Your task to perform on an android device: add a contact Image 0: 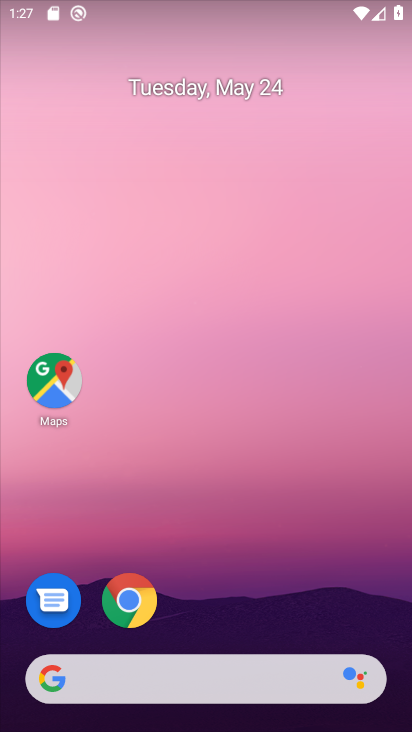
Step 0: drag from (270, 532) to (257, 269)
Your task to perform on an android device: add a contact Image 1: 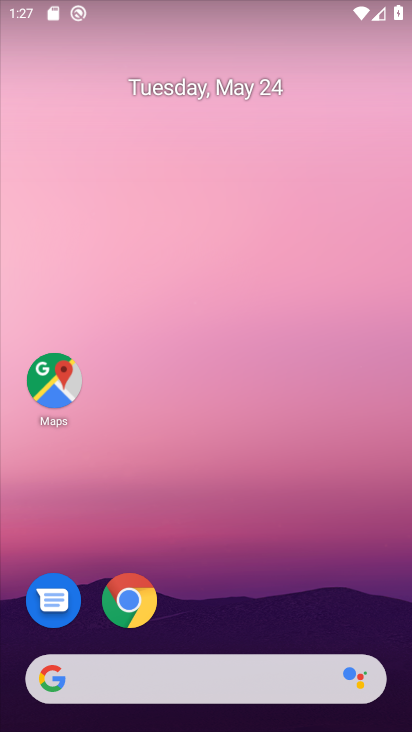
Step 1: drag from (224, 530) to (215, 144)
Your task to perform on an android device: add a contact Image 2: 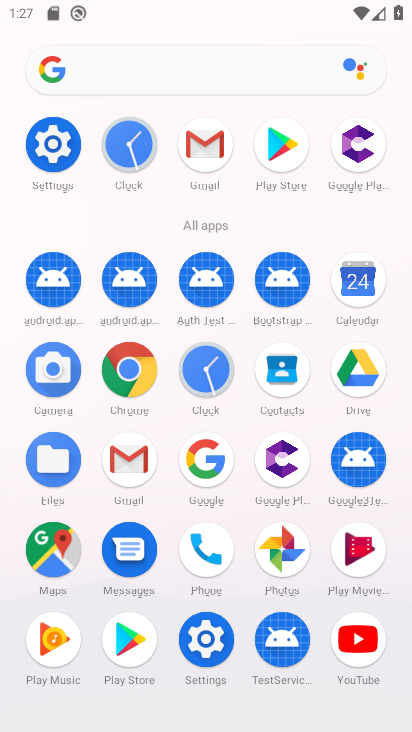
Step 2: click (265, 364)
Your task to perform on an android device: add a contact Image 3: 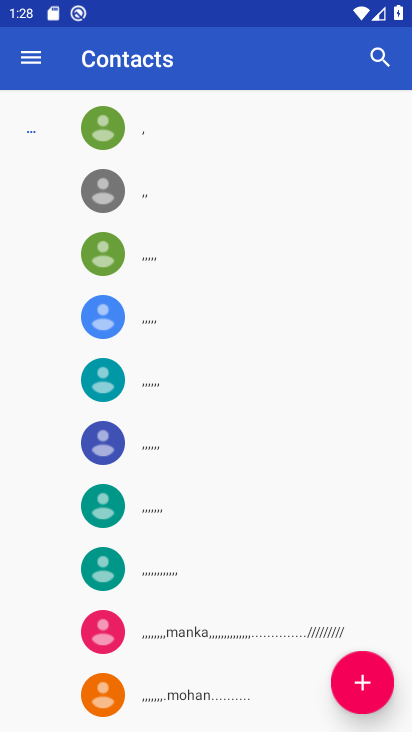
Step 3: click (376, 689)
Your task to perform on an android device: add a contact Image 4: 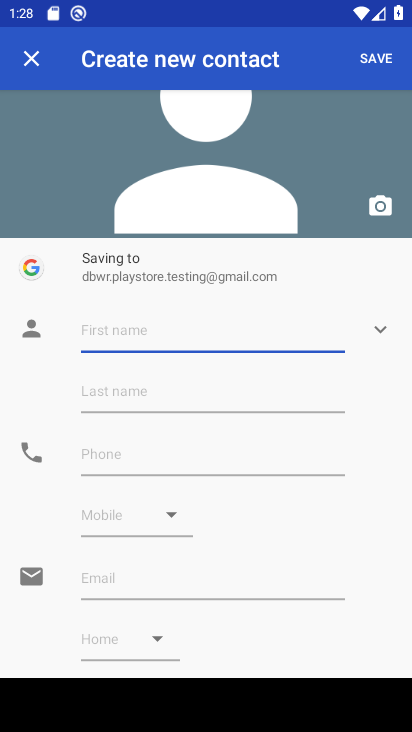
Step 4: type "dev"
Your task to perform on an android device: add a contact Image 5: 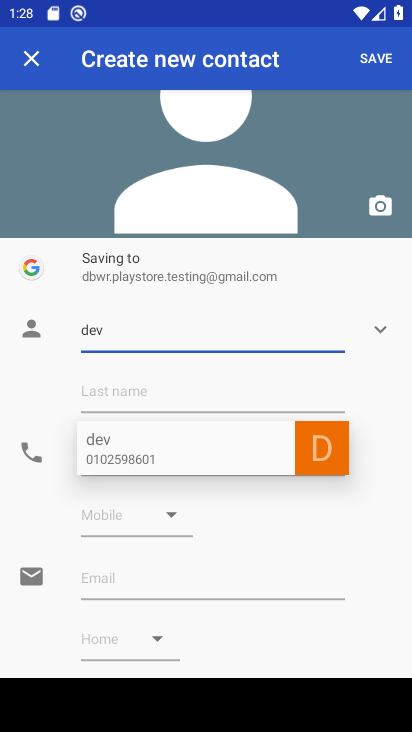
Step 5: click (206, 578)
Your task to perform on an android device: add a contact Image 6: 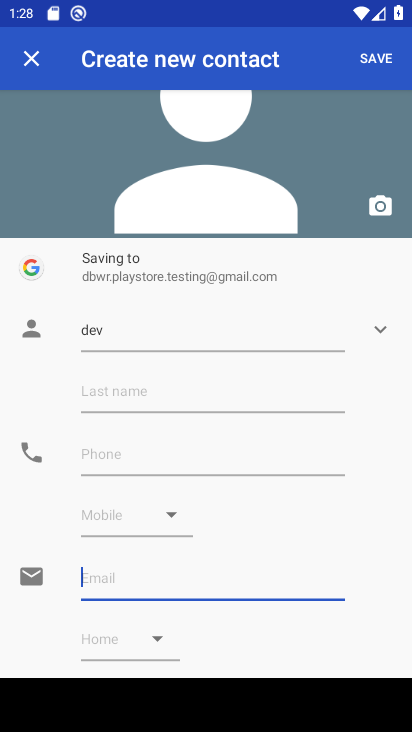
Step 6: click (111, 324)
Your task to perform on an android device: add a contact Image 7: 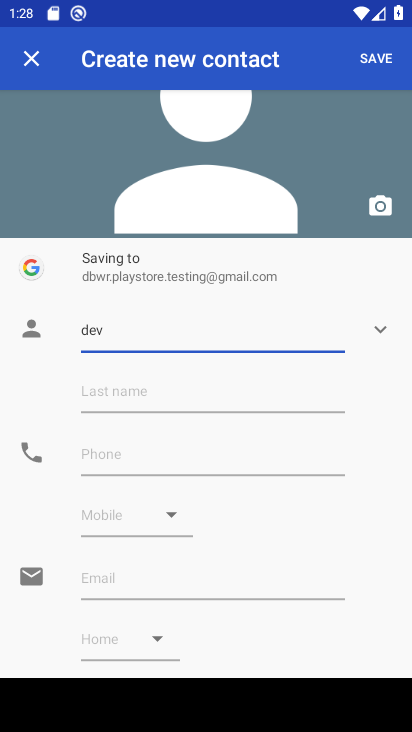
Step 7: type "shree"
Your task to perform on an android device: add a contact Image 8: 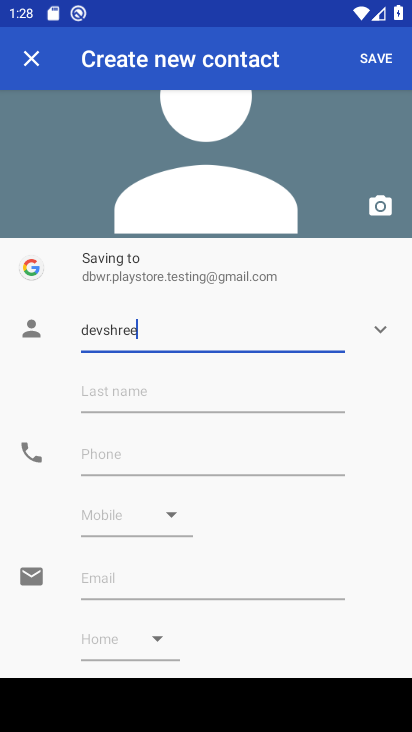
Step 8: click (202, 455)
Your task to perform on an android device: add a contact Image 9: 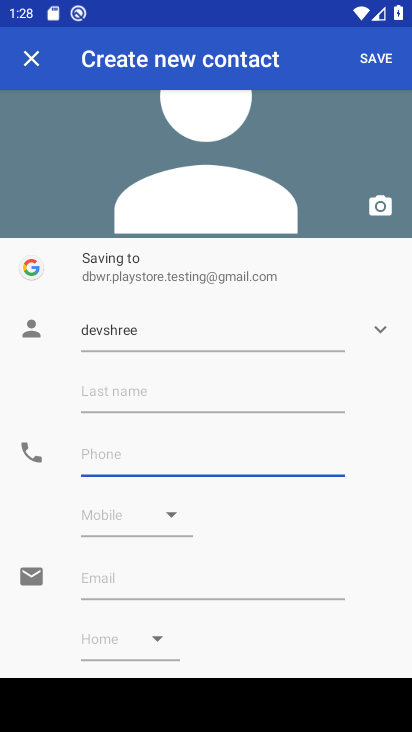
Step 9: click (202, 455)
Your task to perform on an android device: add a contact Image 10: 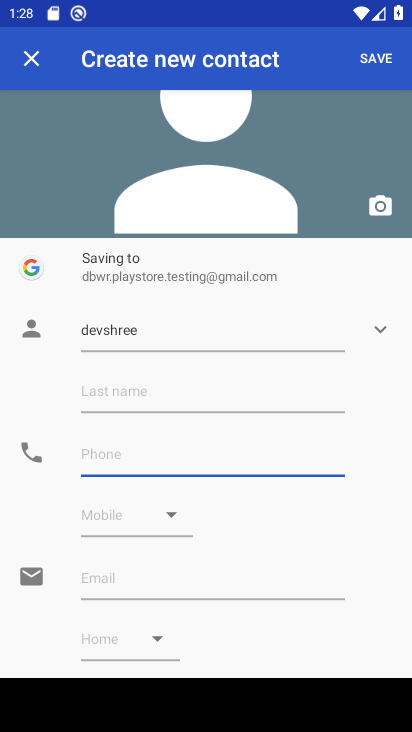
Step 10: type "12324324"
Your task to perform on an android device: add a contact Image 11: 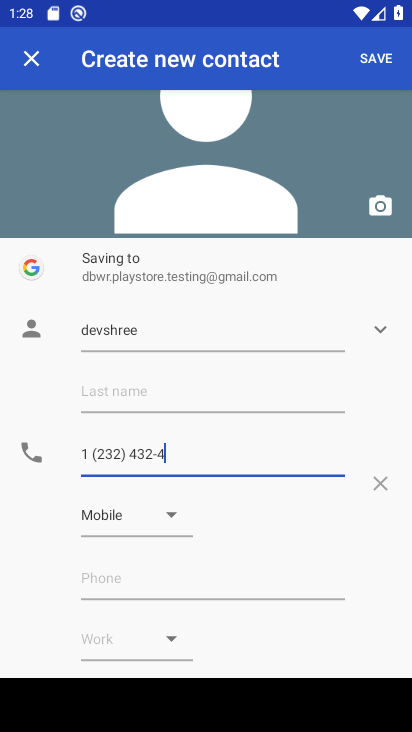
Step 11: click (385, 57)
Your task to perform on an android device: add a contact Image 12: 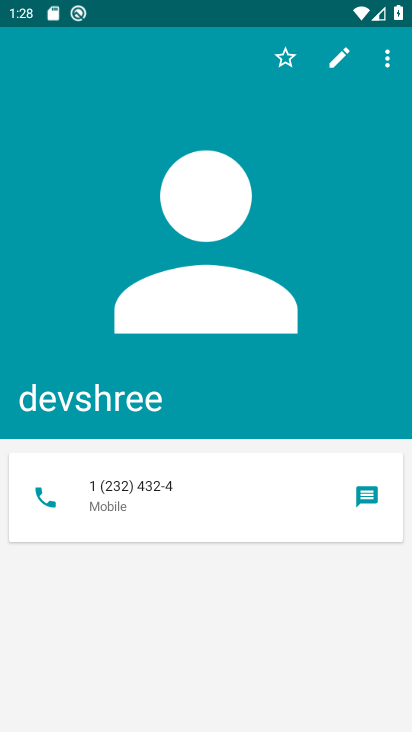
Step 12: task complete